Your task to perform on an android device: Add "usb-a to usb-b" to the cart on walmart.com Image 0: 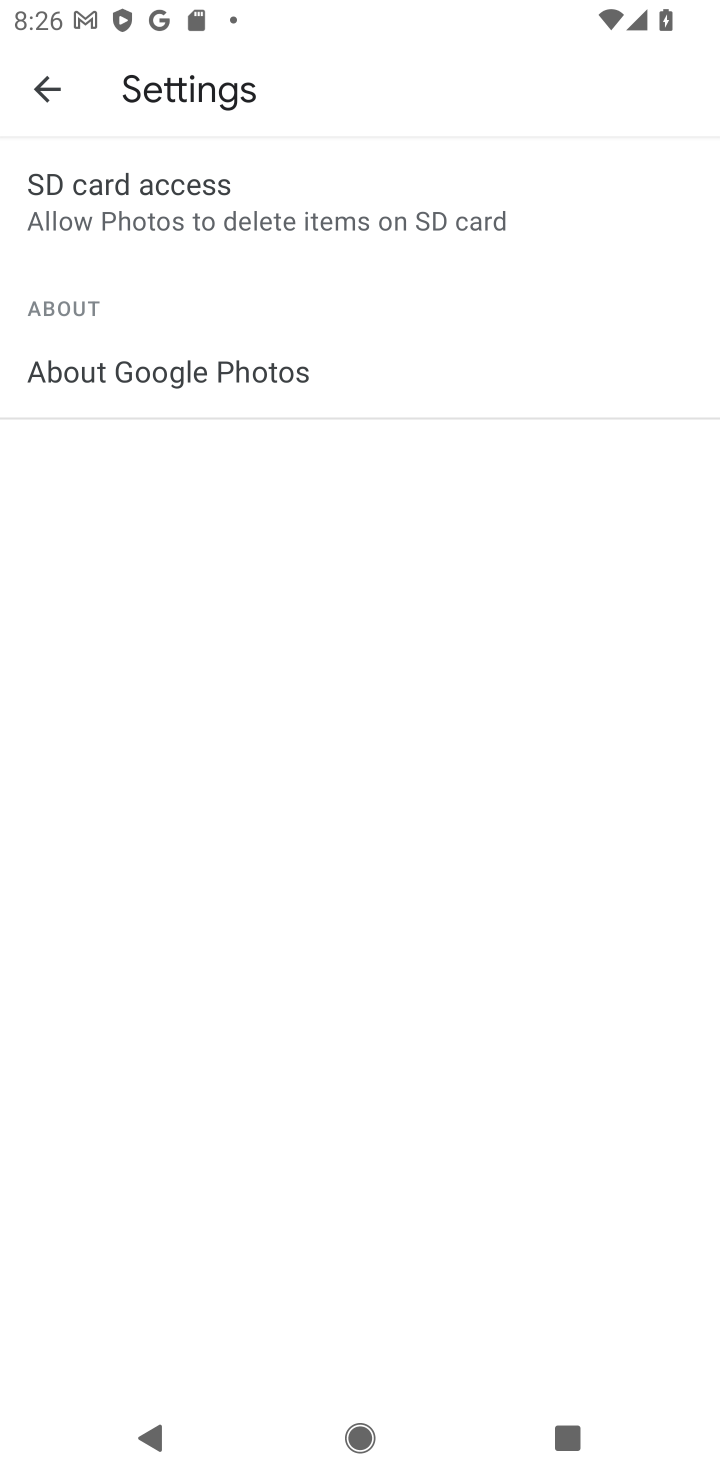
Step 0: press home button
Your task to perform on an android device: Add "usb-a to usb-b" to the cart on walmart.com Image 1: 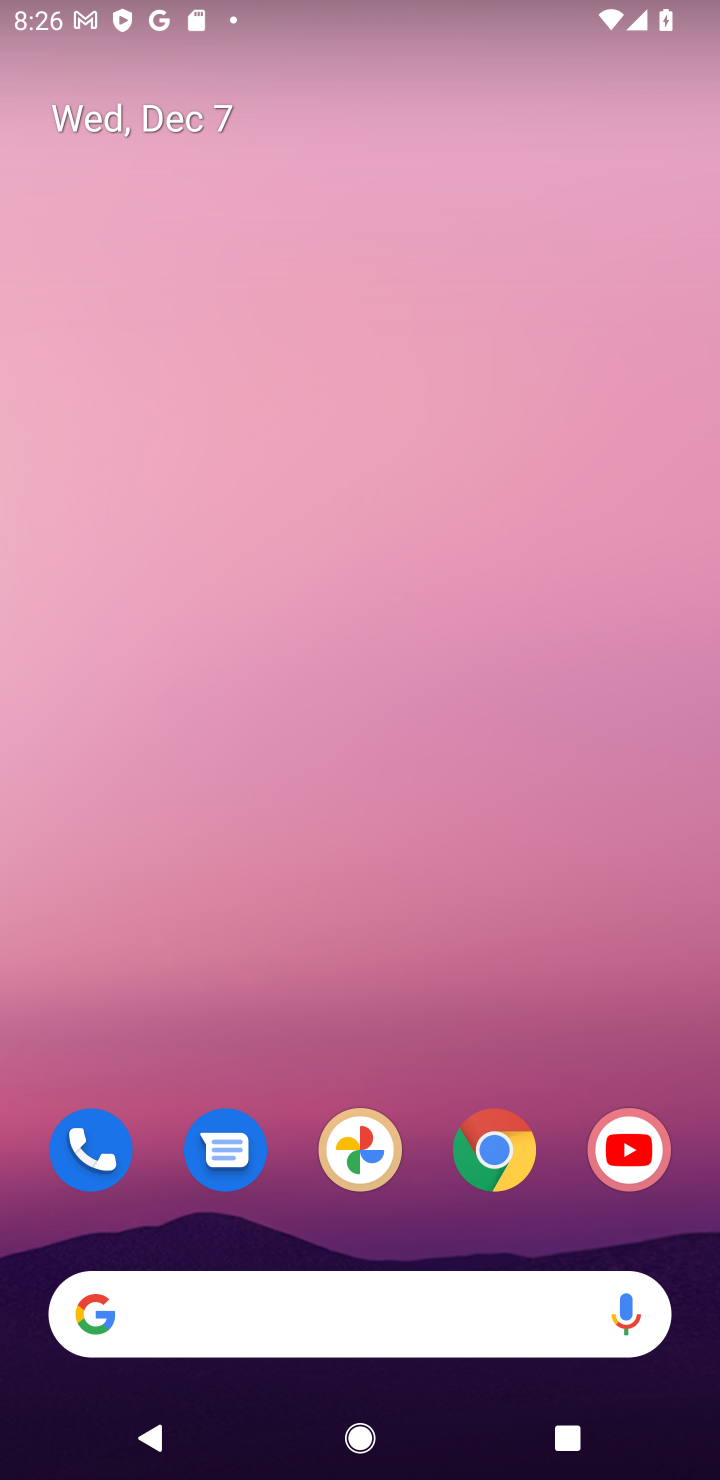
Step 1: click (501, 1152)
Your task to perform on an android device: Add "usb-a to usb-b" to the cart on walmart.com Image 2: 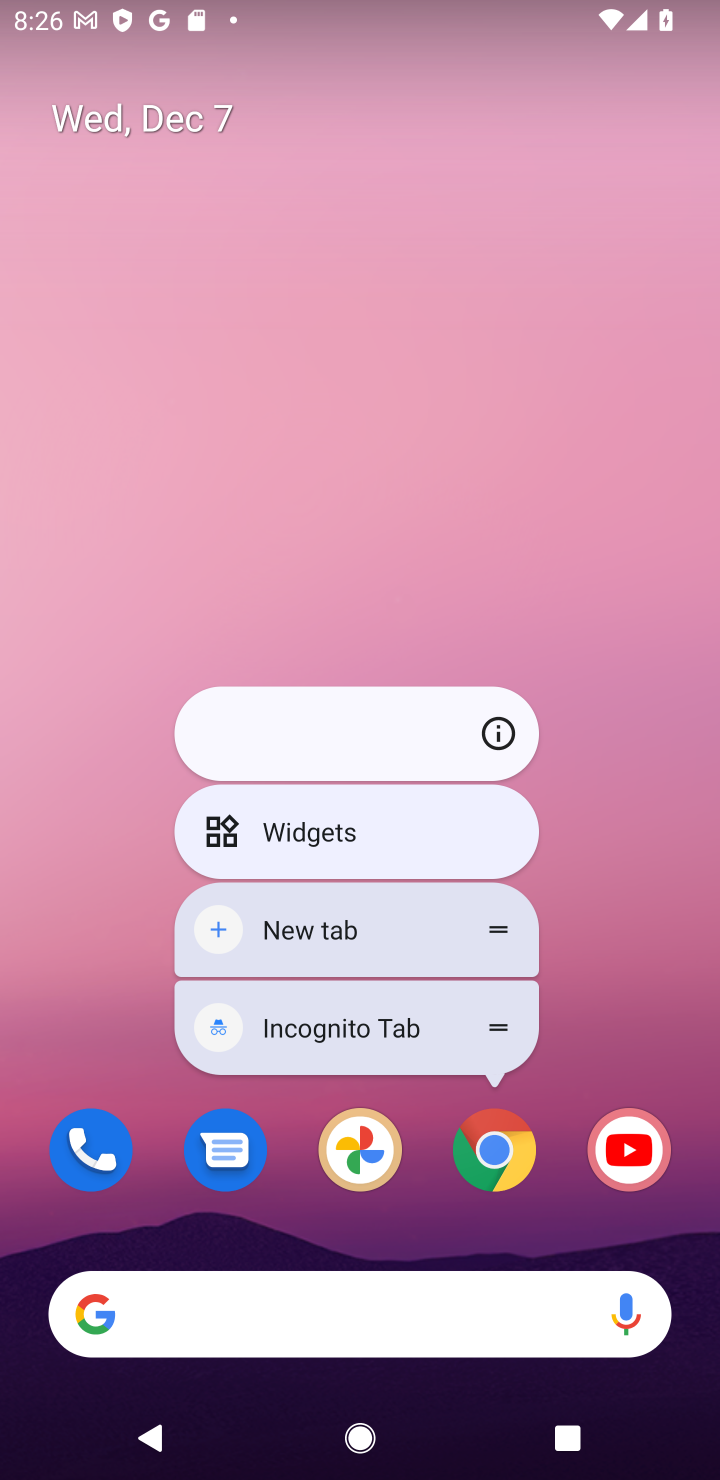
Step 2: click (501, 1152)
Your task to perform on an android device: Add "usb-a to usb-b" to the cart on walmart.com Image 3: 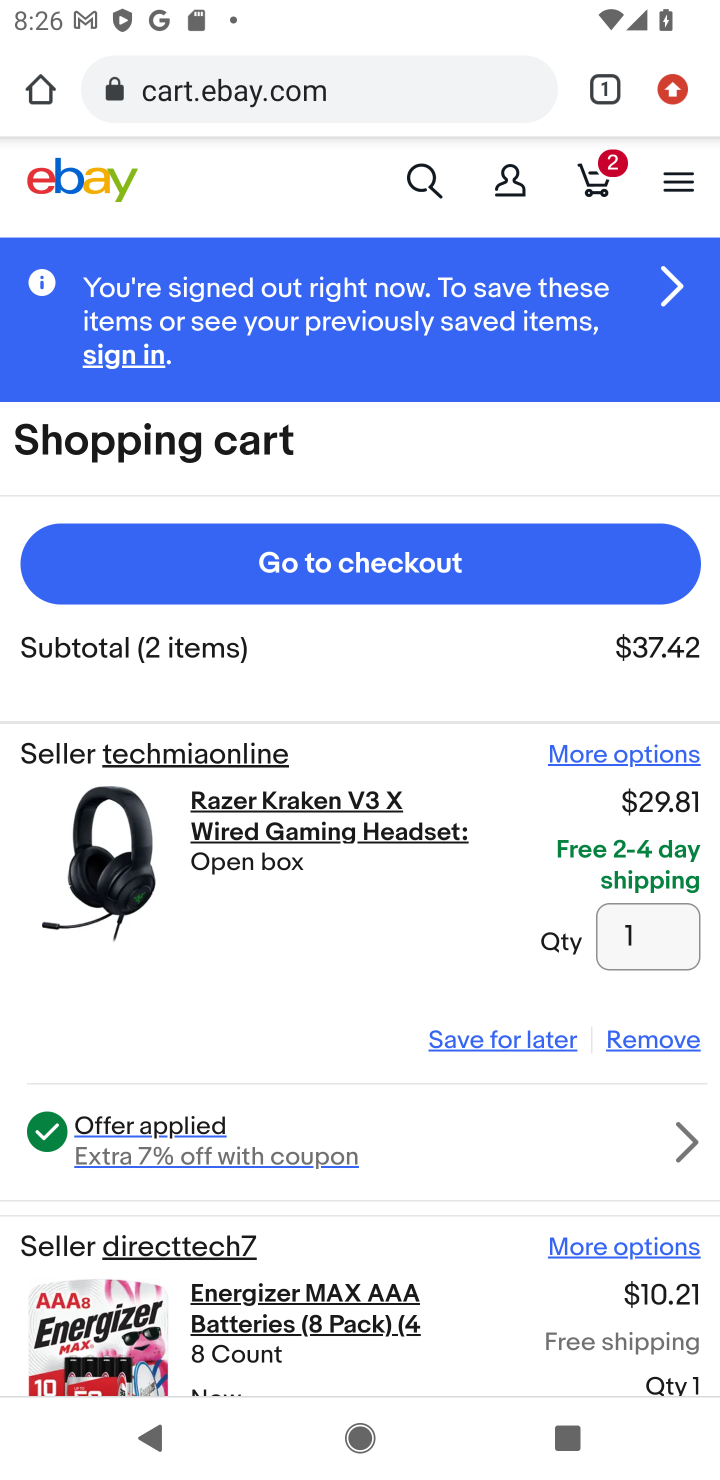
Step 3: click (33, 98)
Your task to perform on an android device: Add "usb-a to usb-b" to the cart on walmart.com Image 4: 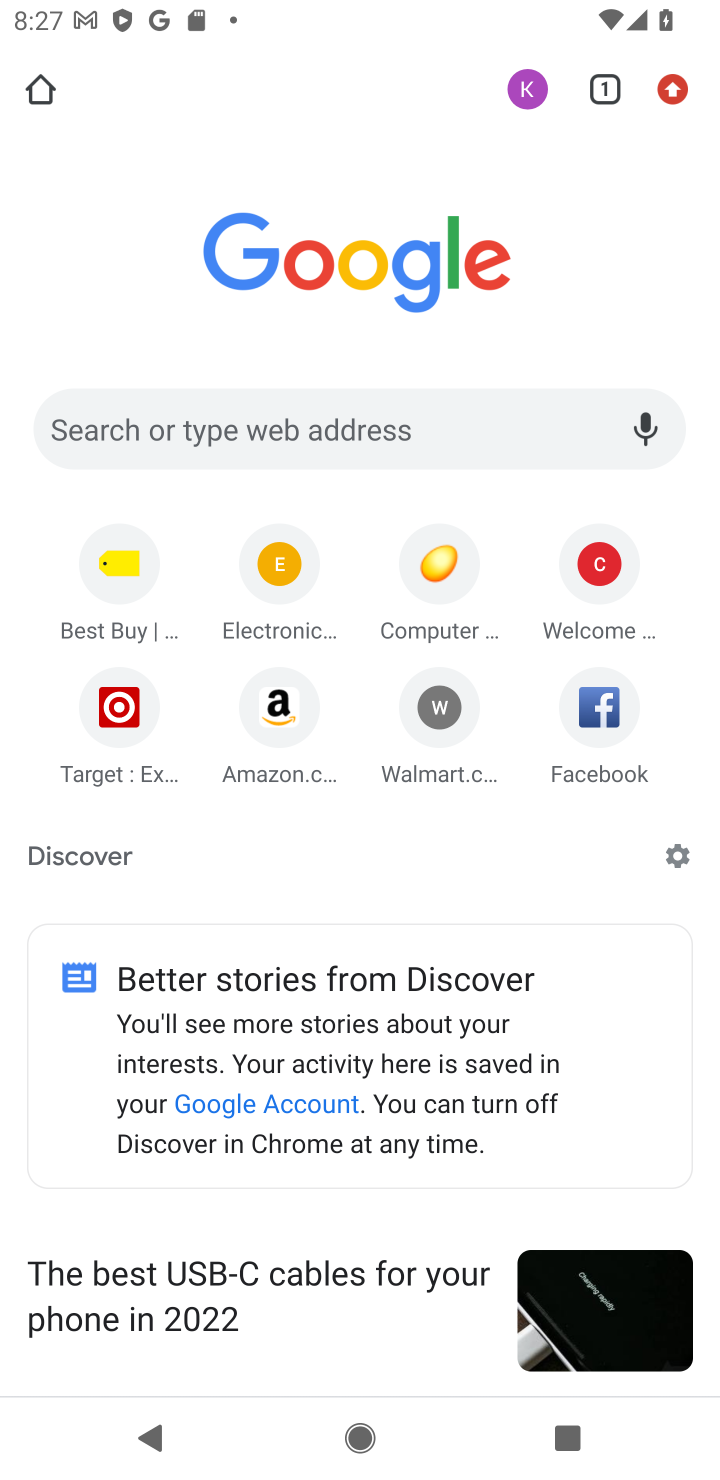
Step 4: click (424, 707)
Your task to perform on an android device: Add "usb-a to usb-b" to the cart on walmart.com Image 5: 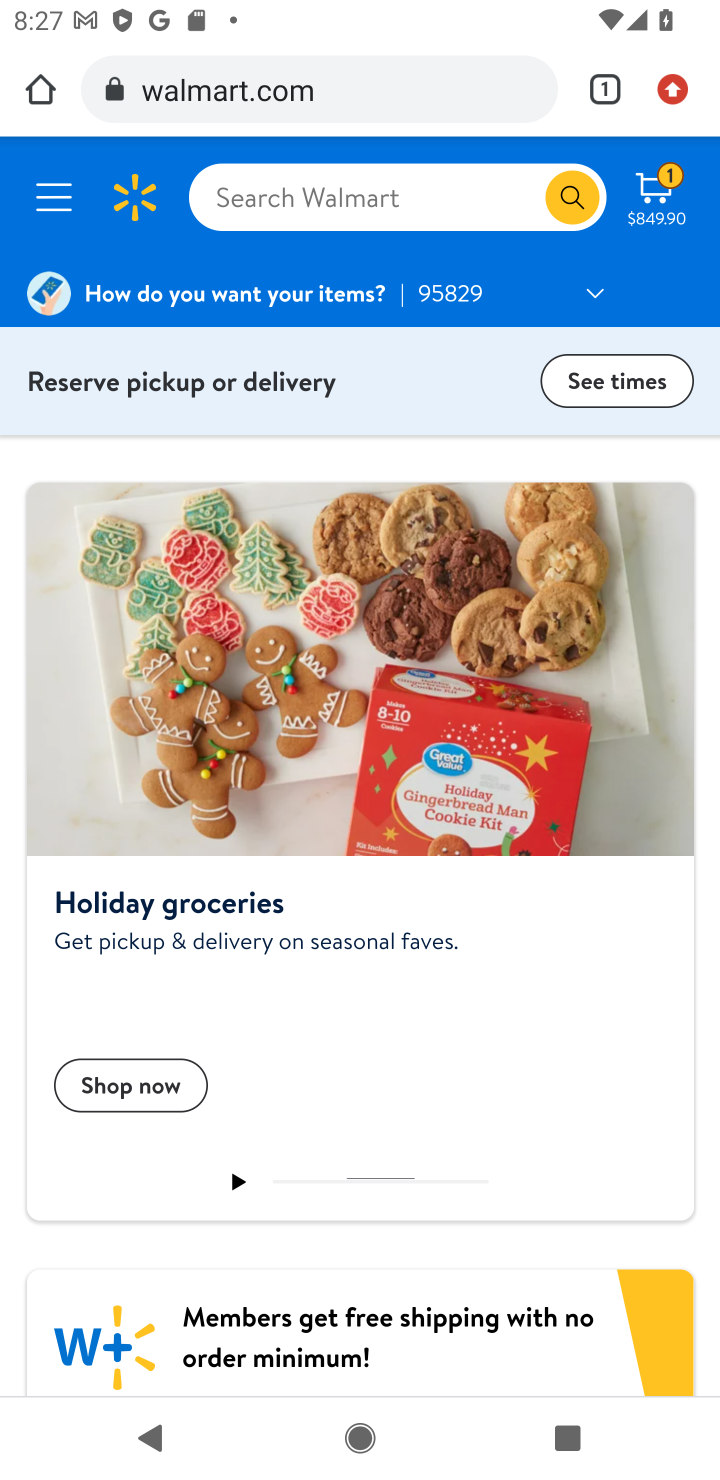
Step 5: click (372, 177)
Your task to perform on an android device: Add "usb-a to usb-b" to the cart on walmart.com Image 6: 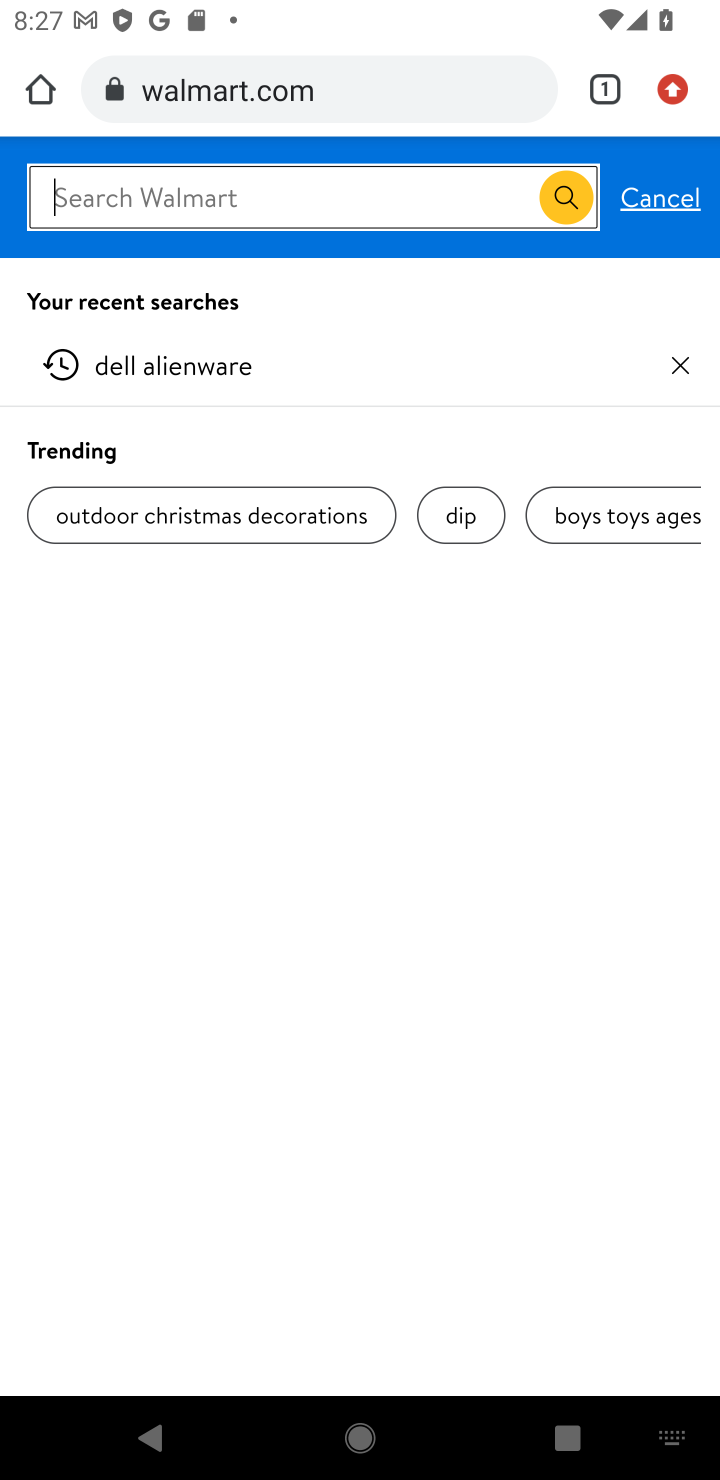
Step 6: press enter
Your task to perform on an android device: Add "usb-a to usb-b" to the cart on walmart.com Image 7: 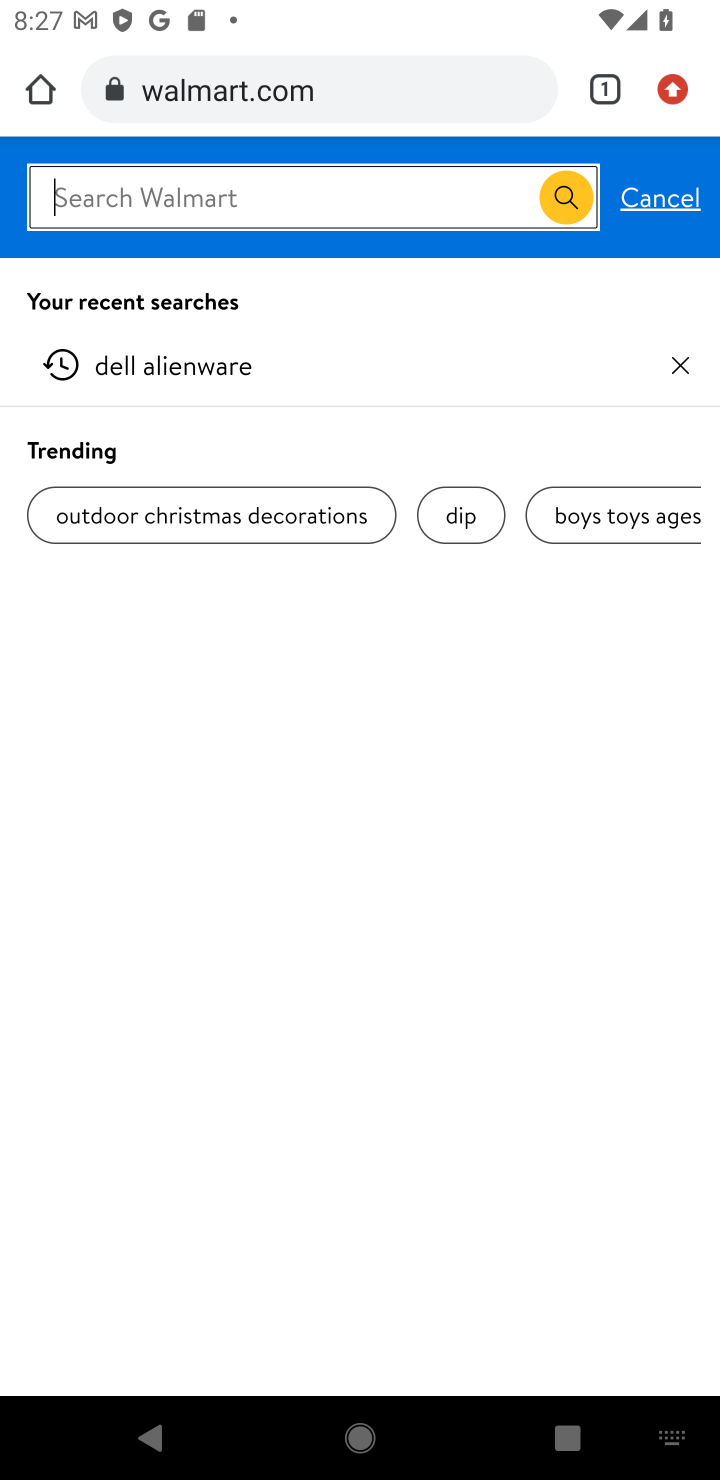
Step 7: type "usb-a to usb-b"
Your task to perform on an android device: Add "usb-a to usb-b" to the cart on walmart.com Image 8: 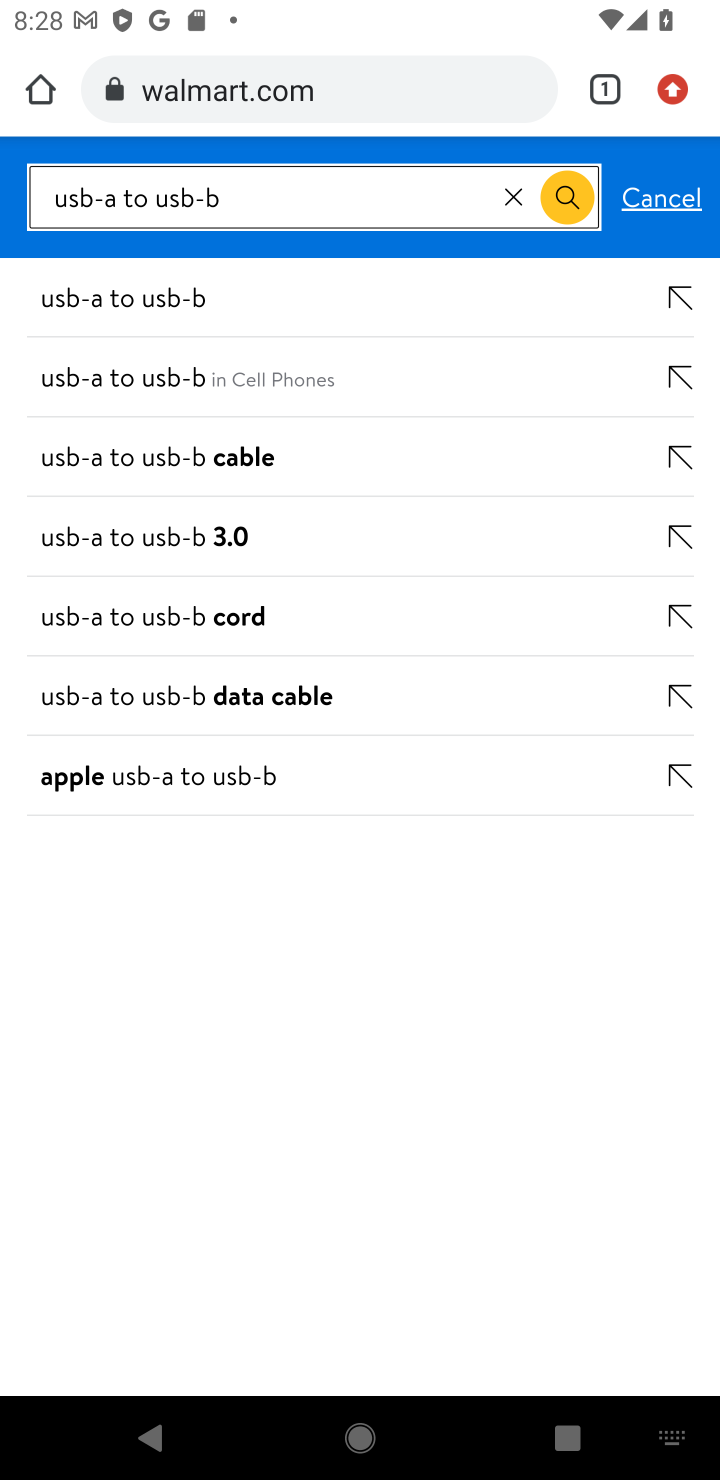
Step 8: click (115, 303)
Your task to perform on an android device: Add "usb-a to usb-b" to the cart on walmart.com Image 9: 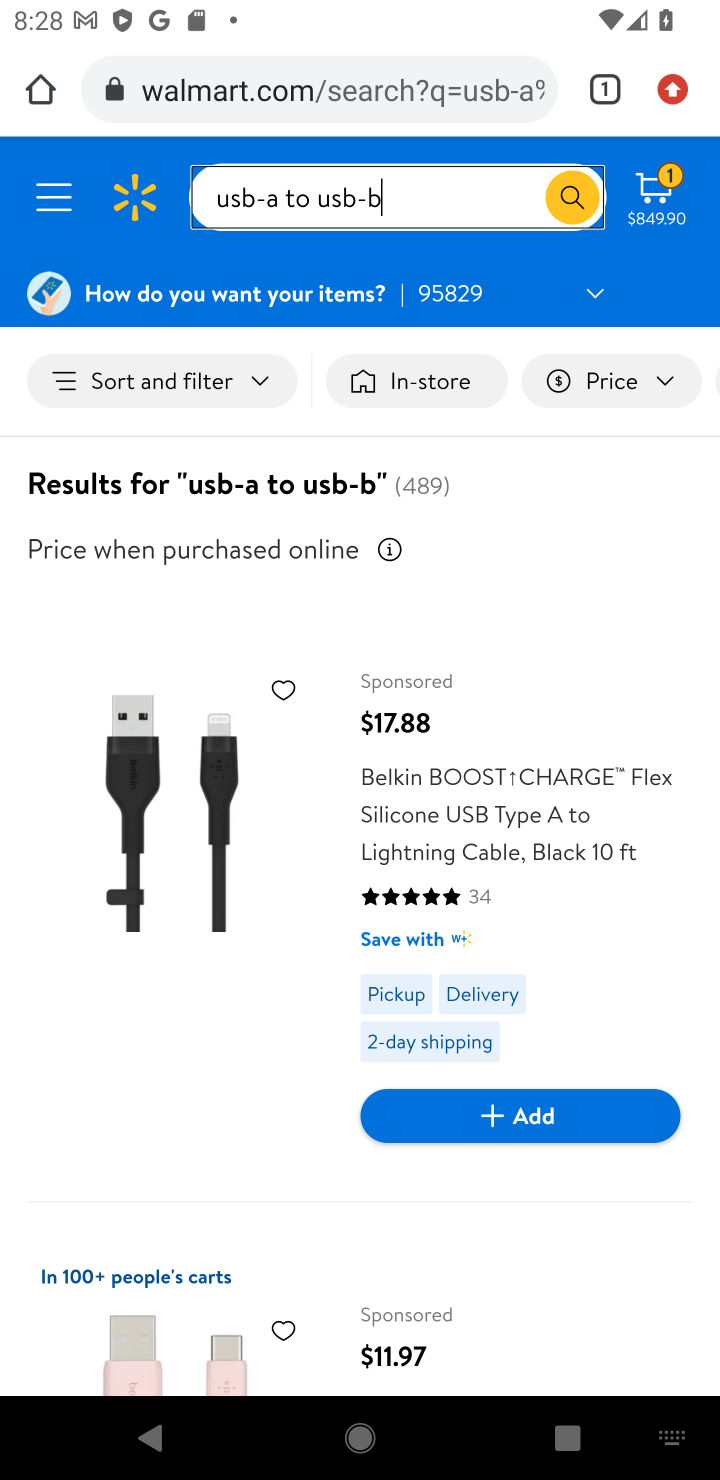
Step 9: drag from (601, 943) to (678, 308)
Your task to perform on an android device: Add "usb-a to usb-b" to the cart on walmart.com Image 10: 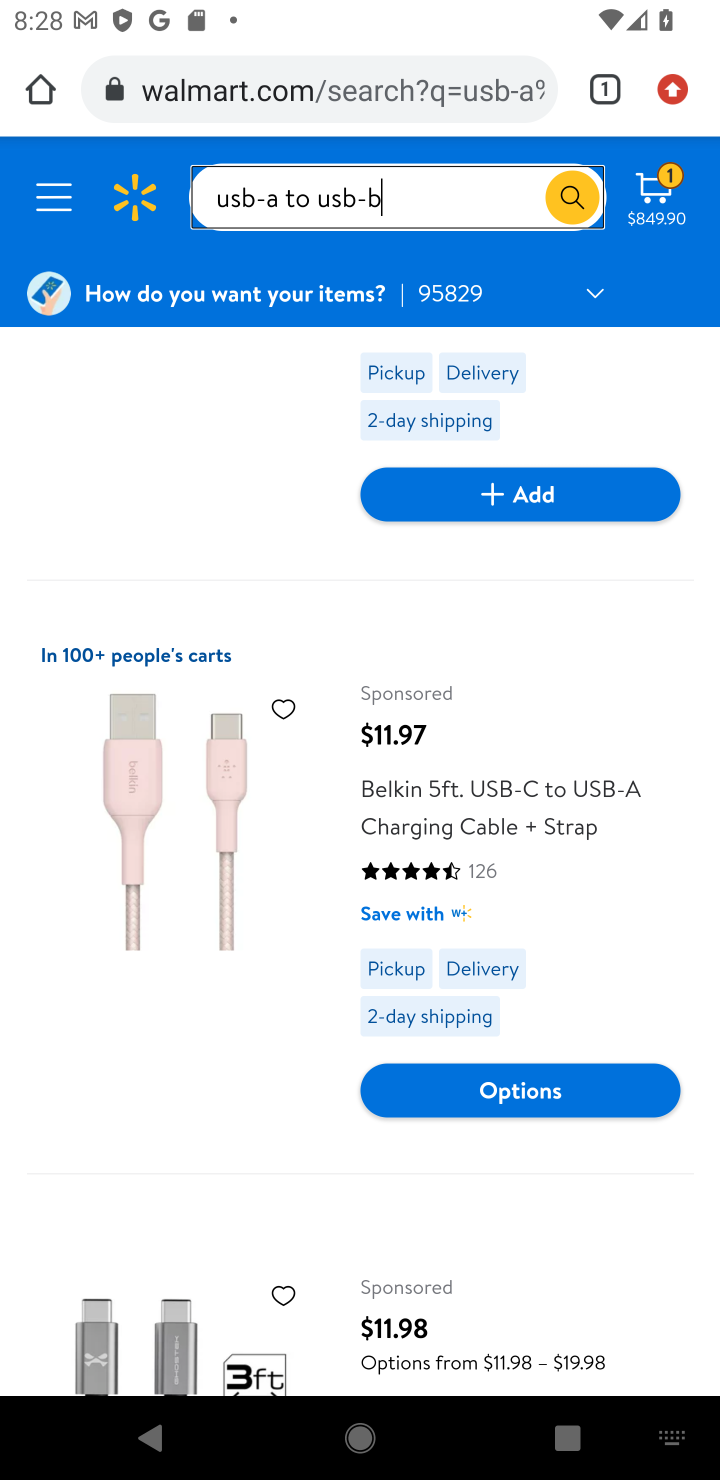
Step 10: drag from (606, 899) to (625, 405)
Your task to perform on an android device: Add "usb-a to usb-b" to the cart on walmart.com Image 11: 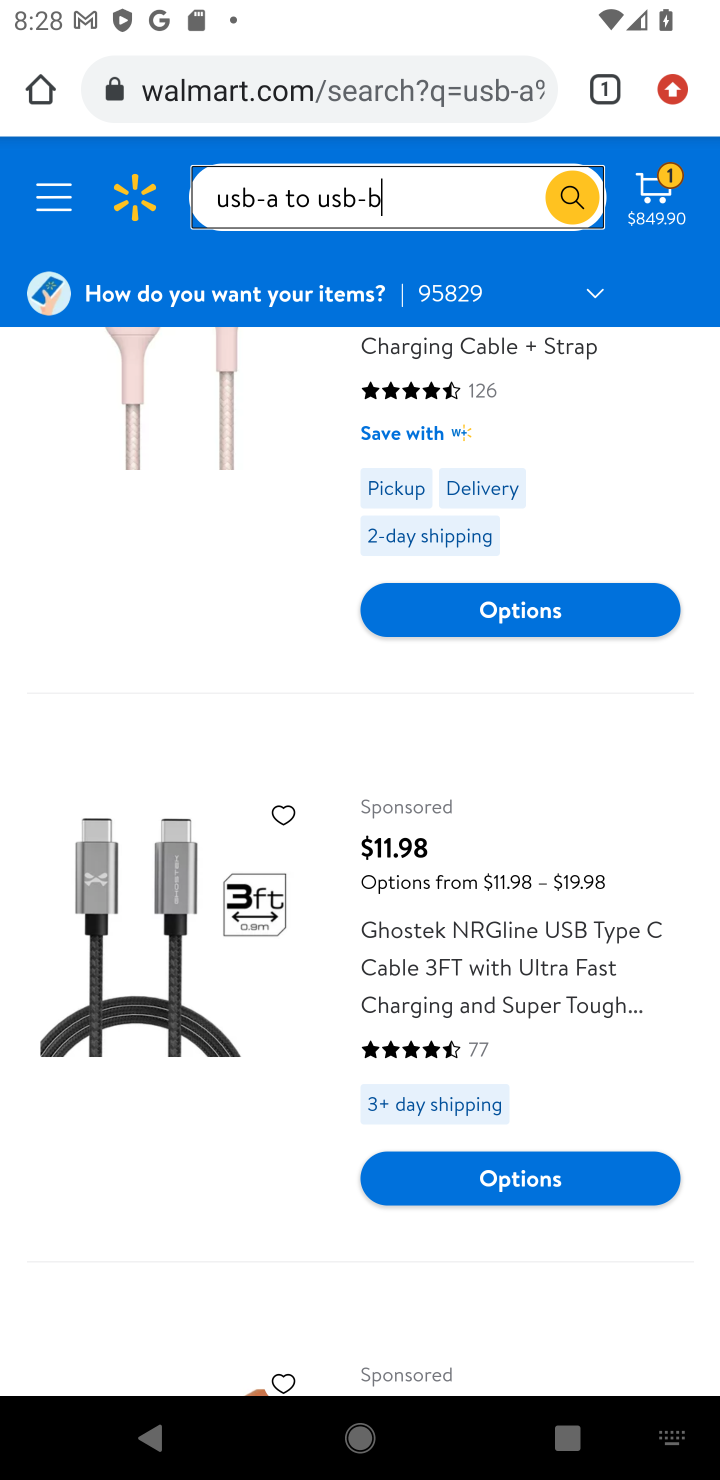
Step 11: drag from (503, 988) to (482, 480)
Your task to perform on an android device: Add "usb-a to usb-b" to the cart on walmart.com Image 12: 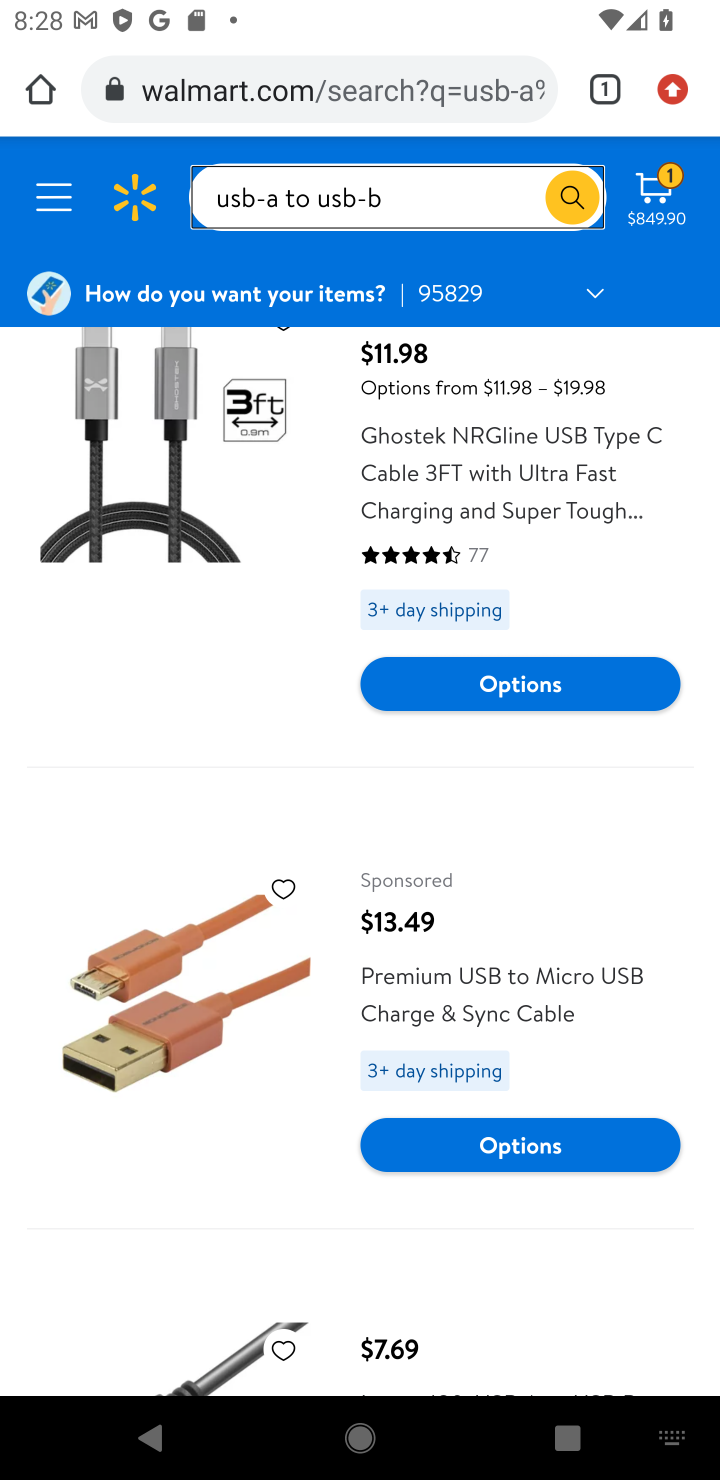
Step 12: drag from (585, 1235) to (542, 366)
Your task to perform on an android device: Add "usb-a to usb-b" to the cart on walmart.com Image 13: 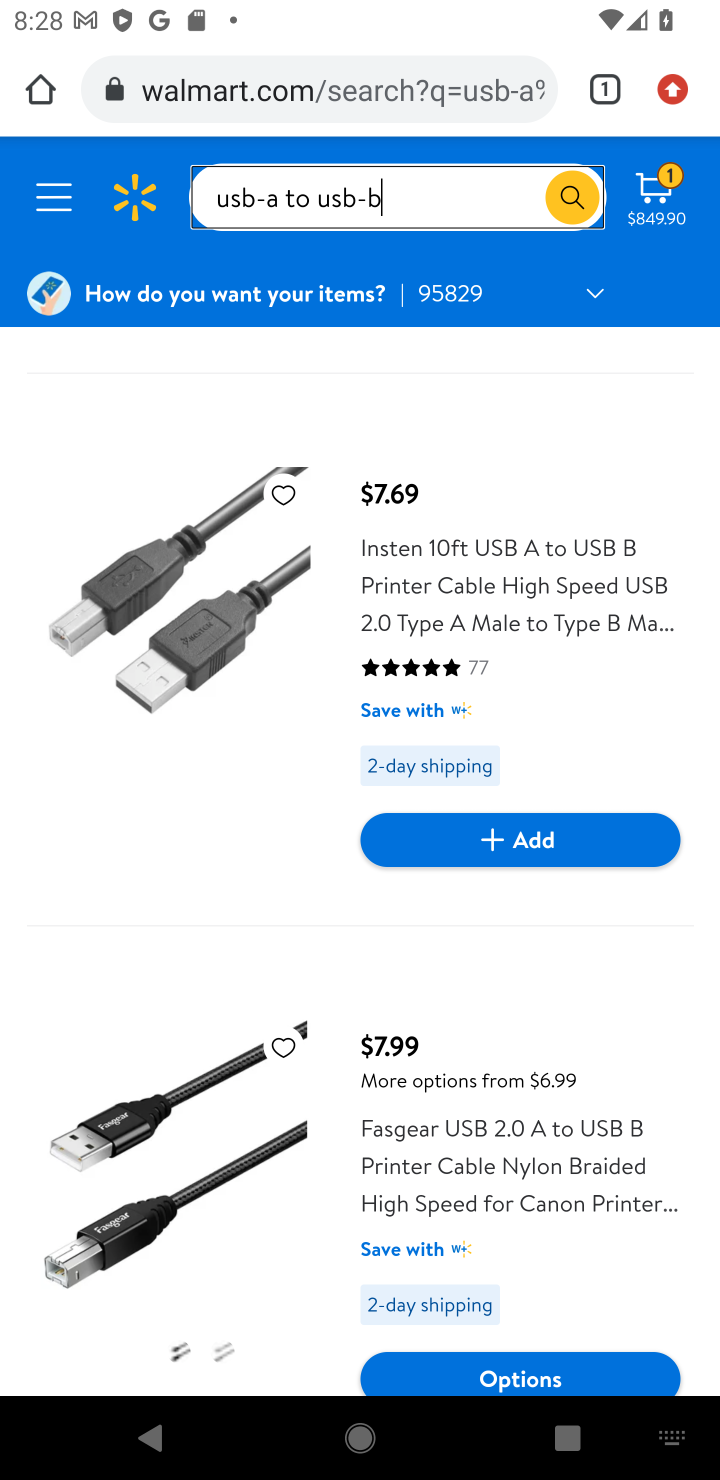
Step 13: click (173, 606)
Your task to perform on an android device: Add "usb-a to usb-b" to the cart on walmart.com Image 14: 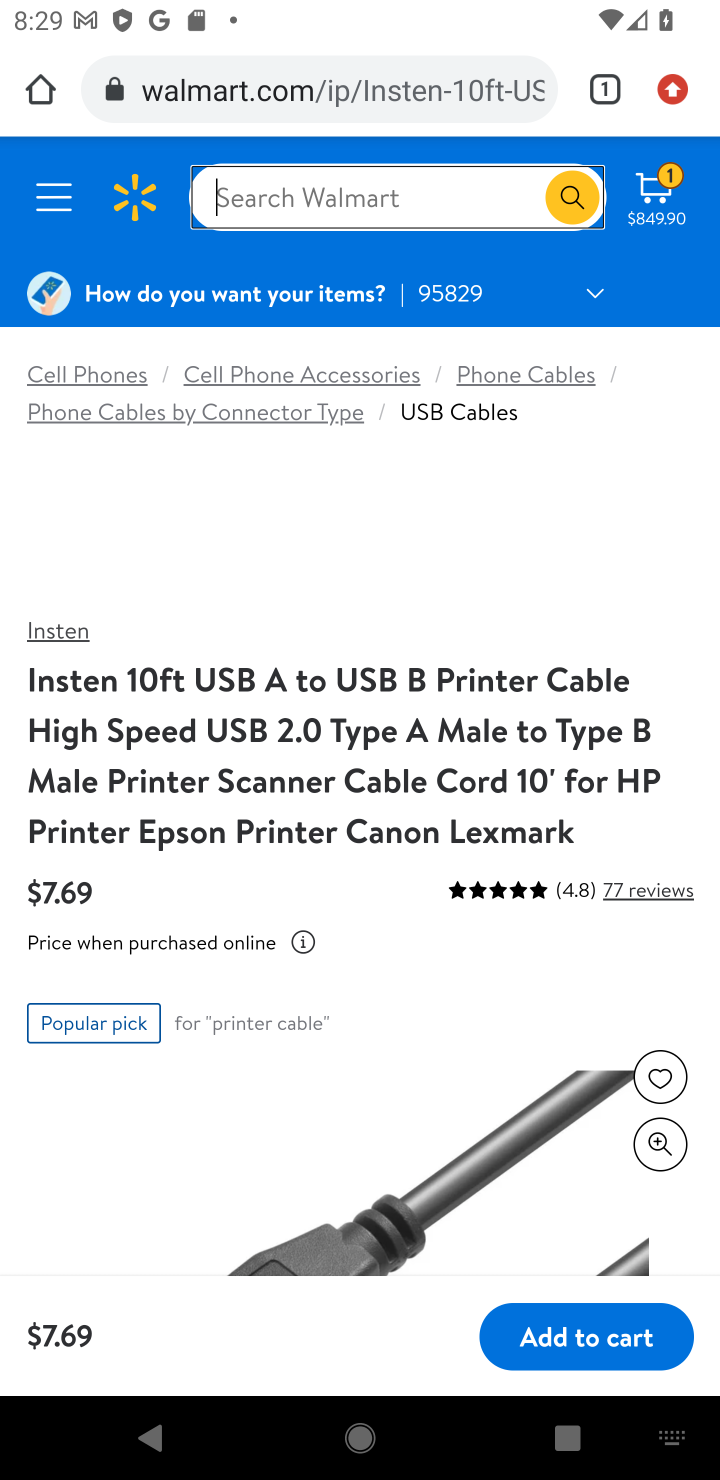
Step 14: click (584, 1353)
Your task to perform on an android device: Add "usb-a to usb-b" to the cart on walmart.com Image 15: 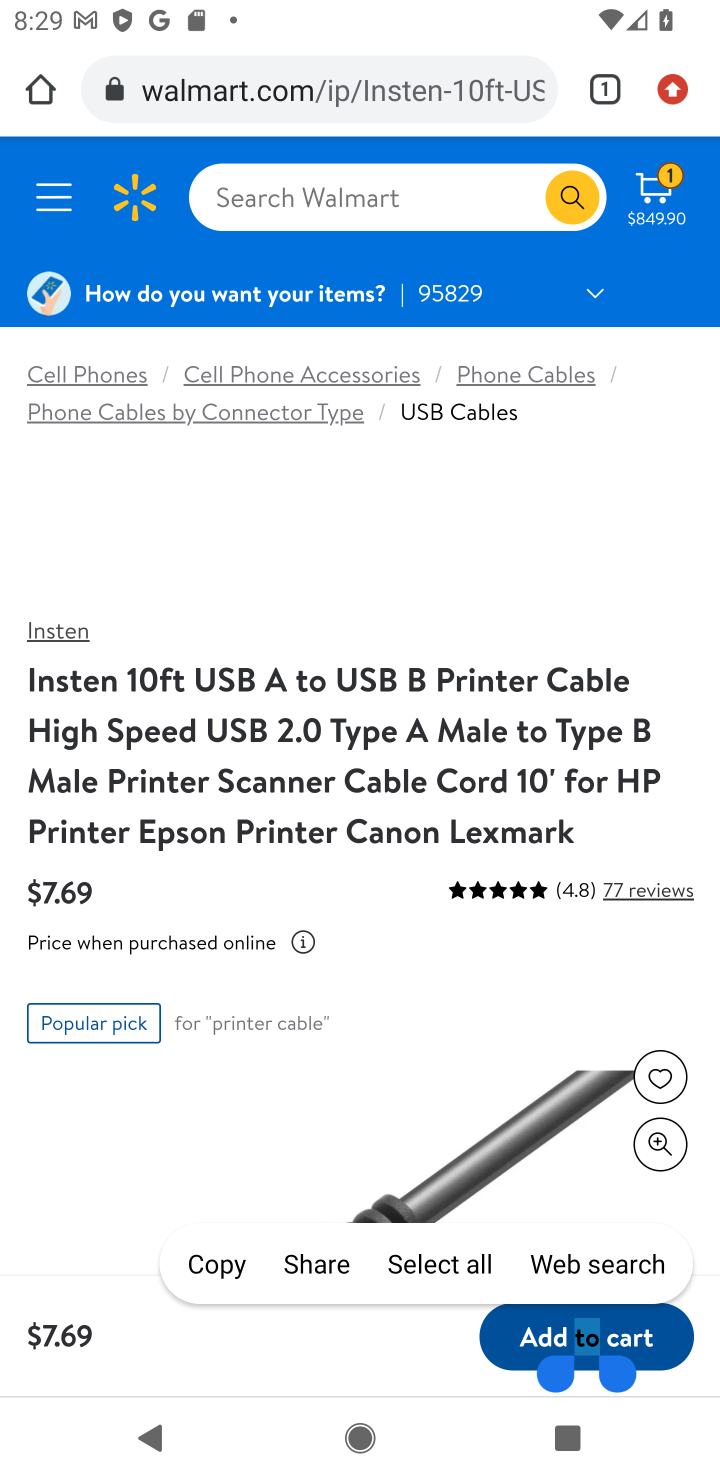
Step 15: click (417, 982)
Your task to perform on an android device: Add "usb-a to usb-b" to the cart on walmart.com Image 16: 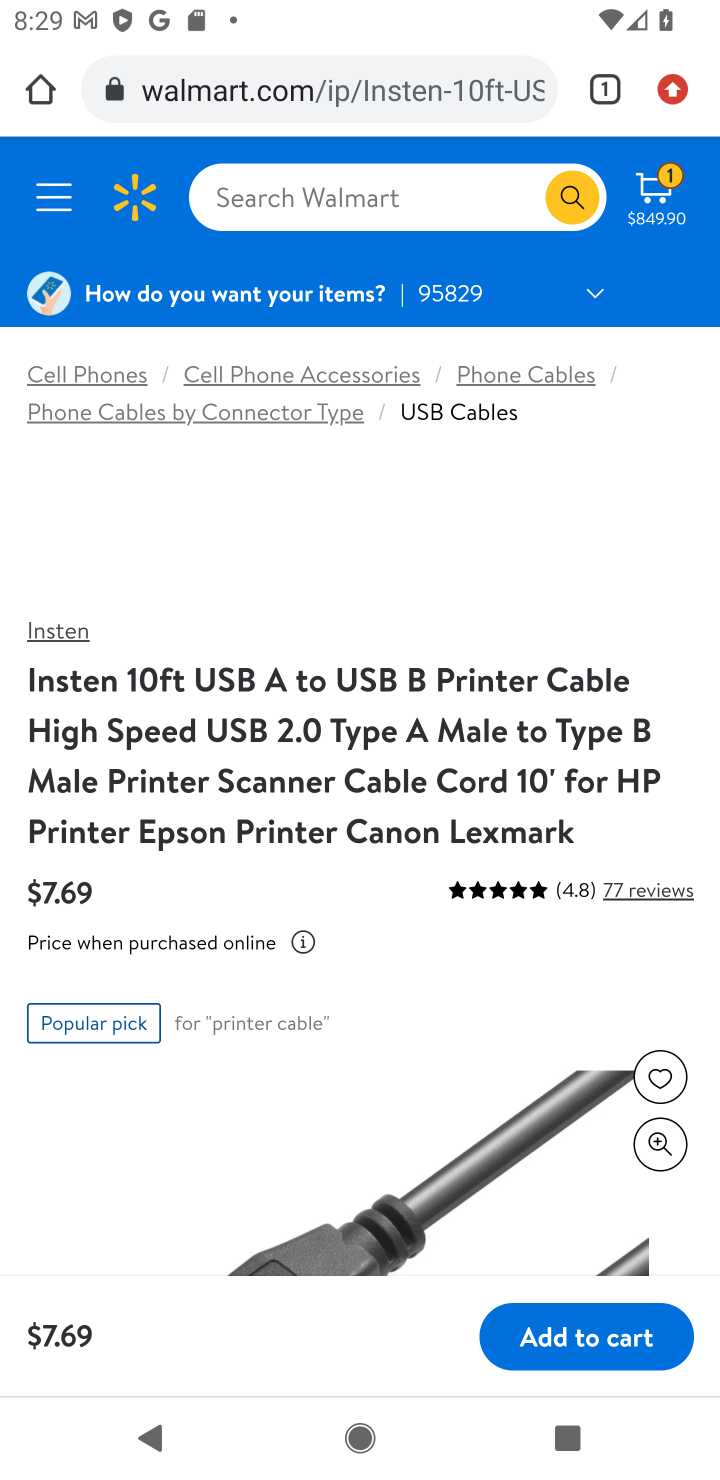
Step 16: click (546, 1331)
Your task to perform on an android device: Add "usb-a to usb-b" to the cart on walmart.com Image 17: 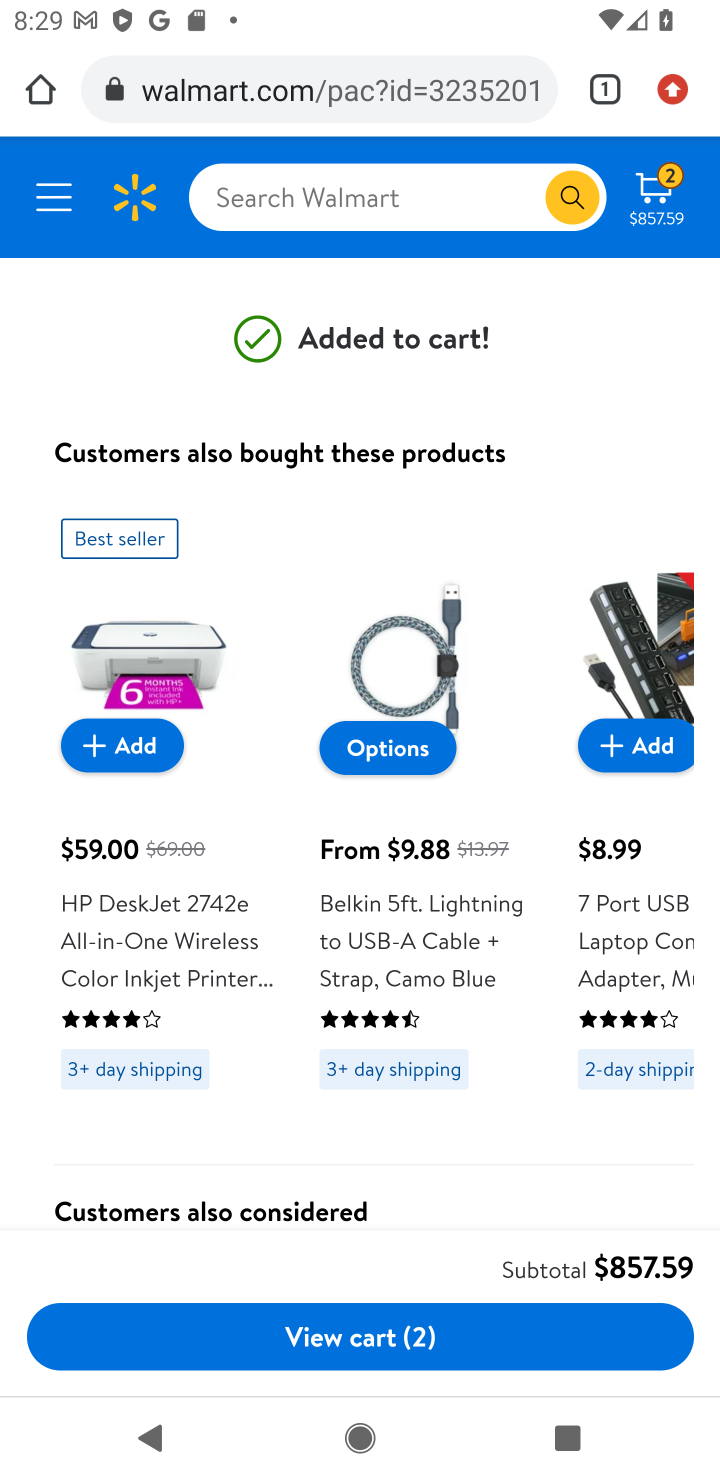
Step 17: click (367, 1335)
Your task to perform on an android device: Add "usb-a to usb-b" to the cart on walmart.com Image 18: 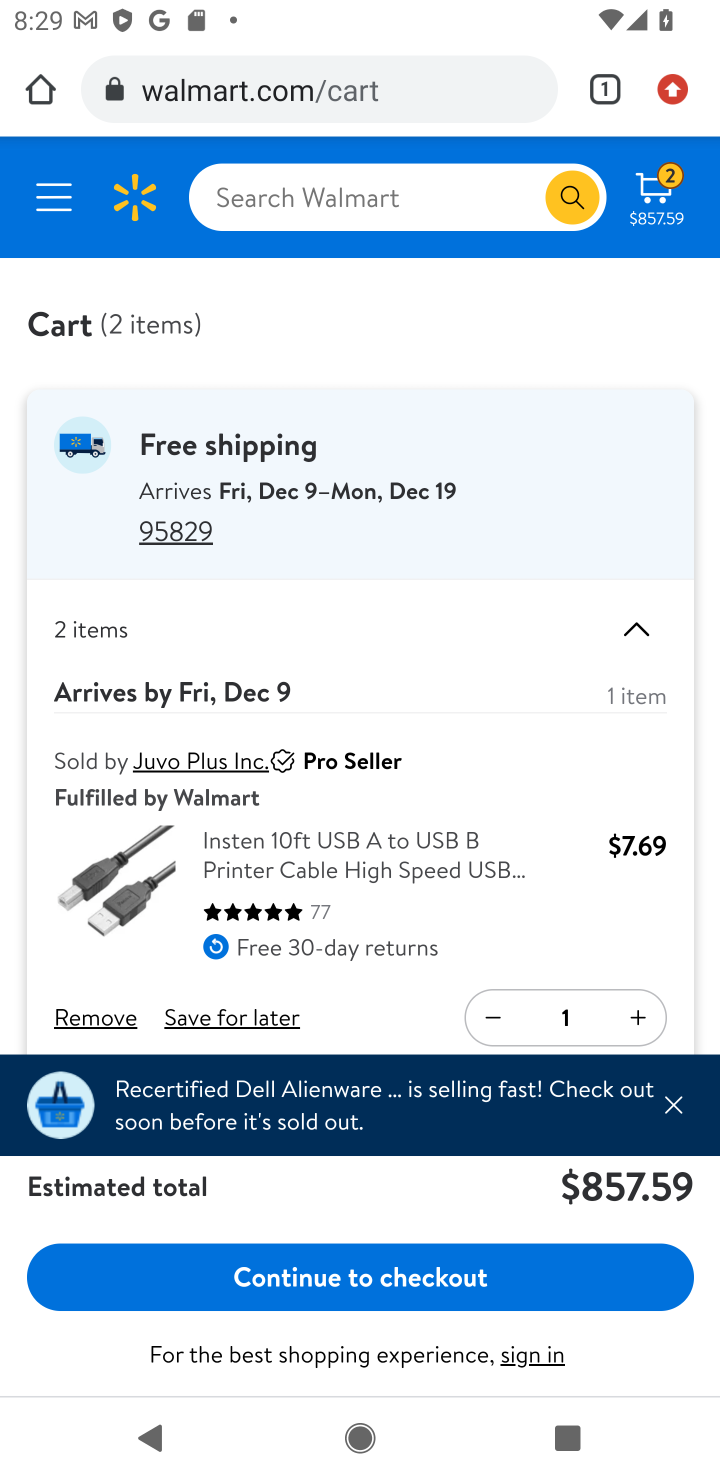
Step 18: task complete